Your task to perform on an android device: Is it going to rain this weekend? Image 0: 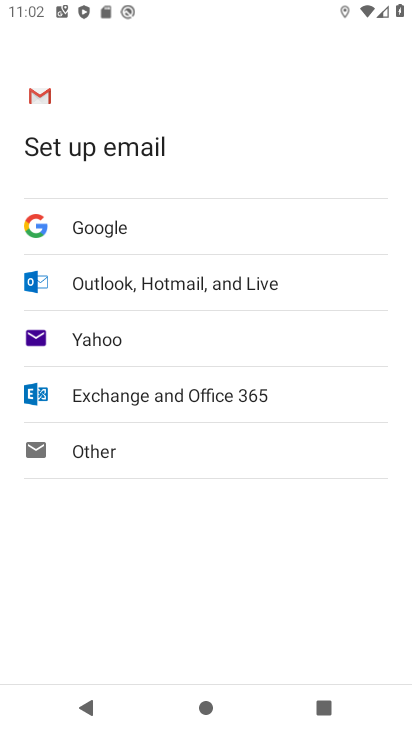
Step 0: press home button
Your task to perform on an android device: Is it going to rain this weekend? Image 1: 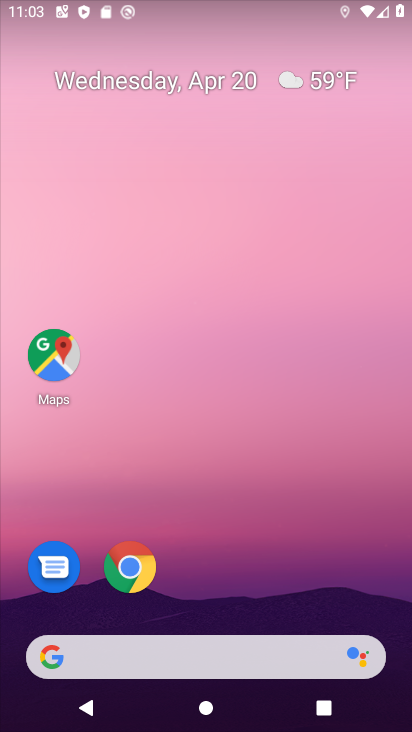
Step 1: drag from (276, 611) to (212, 14)
Your task to perform on an android device: Is it going to rain this weekend? Image 2: 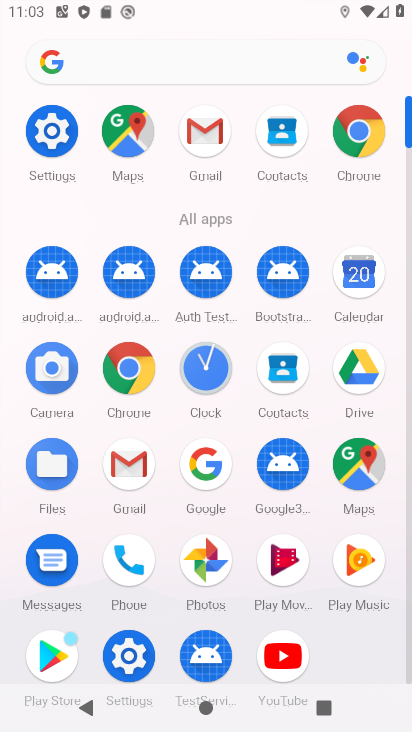
Step 2: click (146, 54)
Your task to perform on an android device: Is it going to rain this weekend? Image 3: 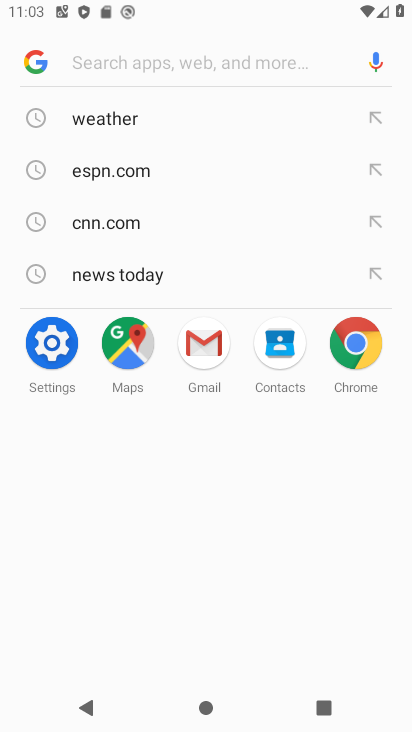
Step 3: type "is it going to rain this weekend"
Your task to perform on an android device: Is it going to rain this weekend? Image 4: 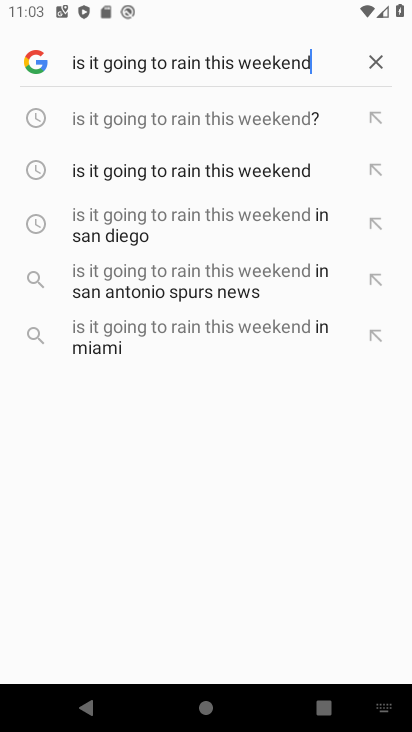
Step 4: click (151, 111)
Your task to perform on an android device: Is it going to rain this weekend? Image 5: 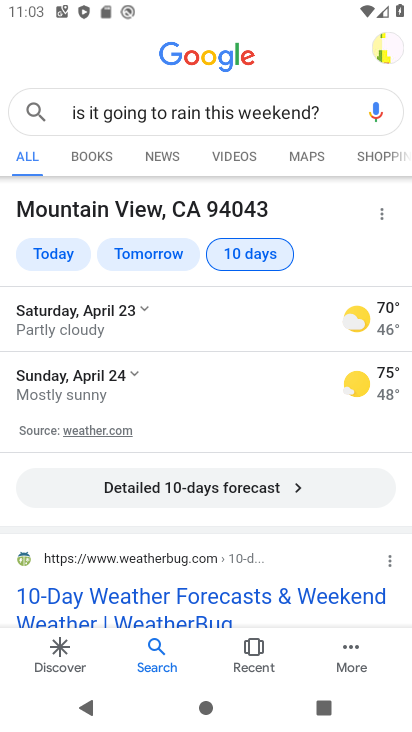
Step 5: task complete